Your task to perform on an android device: Open Youtube and go to the subscriptions tab Image 0: 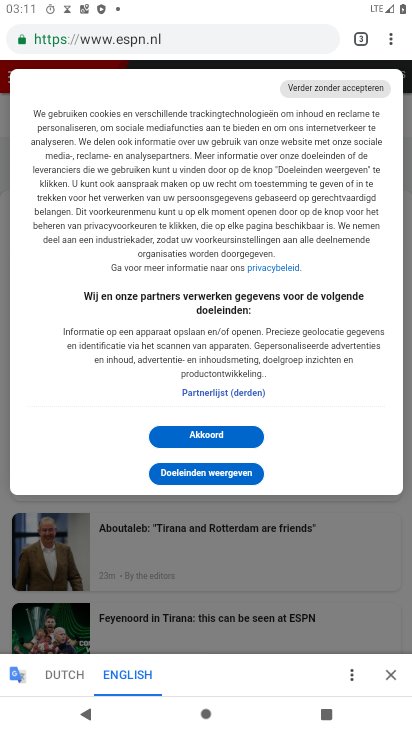
Step 0: press home button
Your task to perform on an android device: Open Youtube and go to the subscriptions tab Image 1: 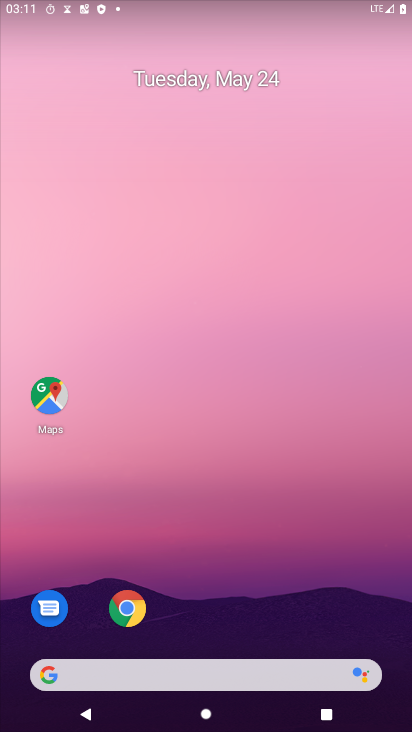
Step 1: drag from (236, 613) to (199, 217)
Your task to perform on an android device: Open Youtube and go to the subscriptions tab Image 2: 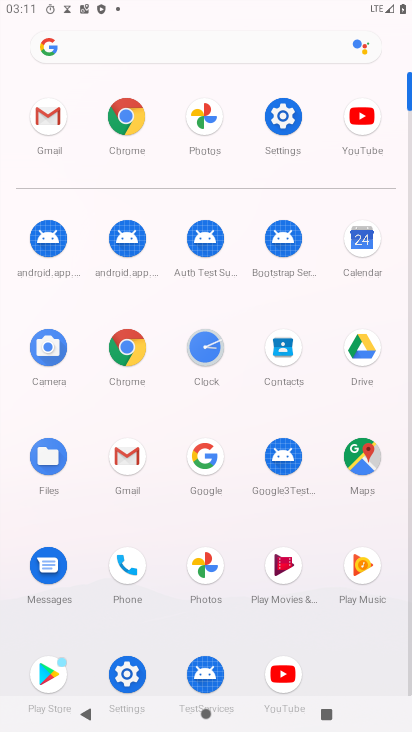
Step 2: click (370, 123)
Your task to perform on an android device: Open Youtube and go to the subscriptions tab Image 3: 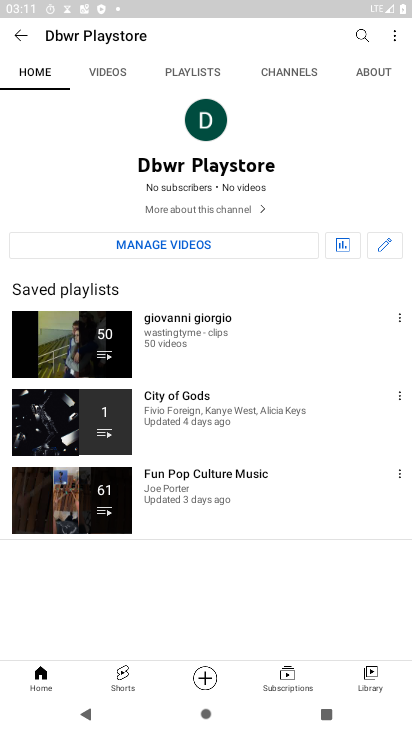
Step 3: click (289, 677)
Your task to perform on an android device: Open Youtube and go to the subscriptions tab Image 4: 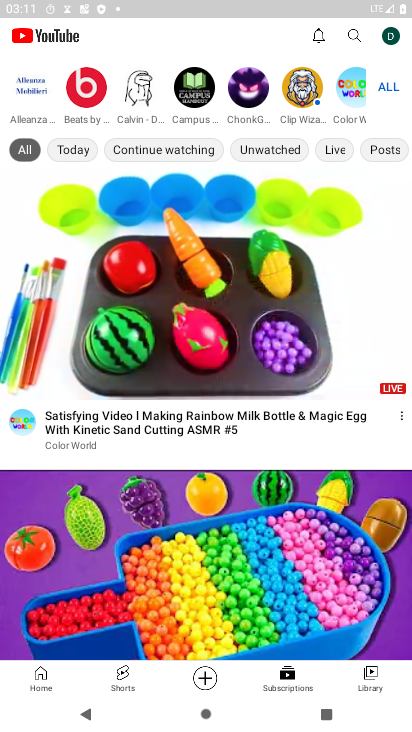
Step 4: task complete